Your task to perform on an android device: Open notification settings Image 0: 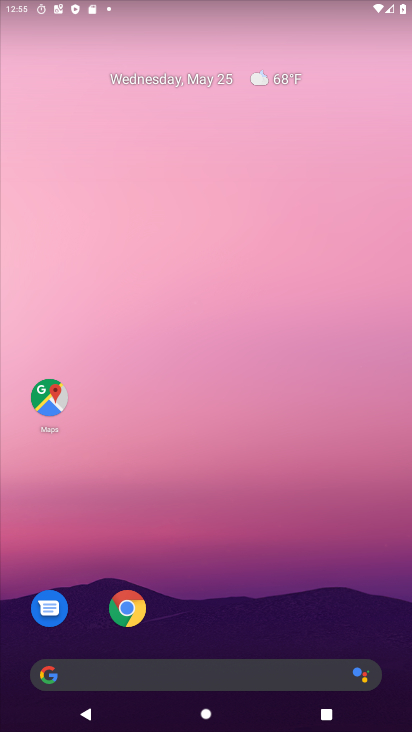
Step 0: click (393, 367)
Your task to perform on an android device: Open notification settings Image 1: 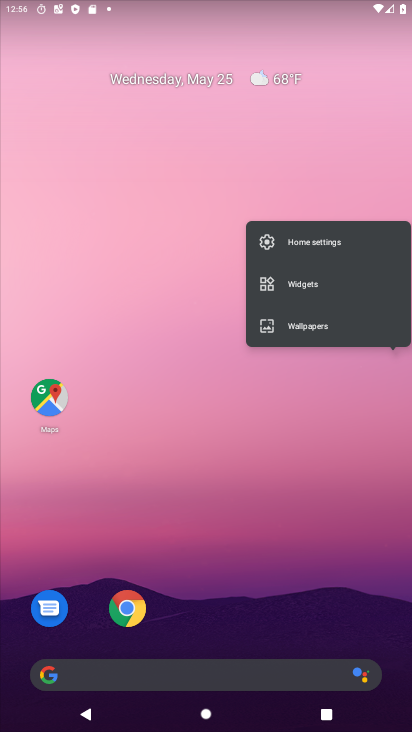
Step 1: drag from (308, 582) to (301, 13)
Your task to perform on an android device: Open notification settings Image 2: 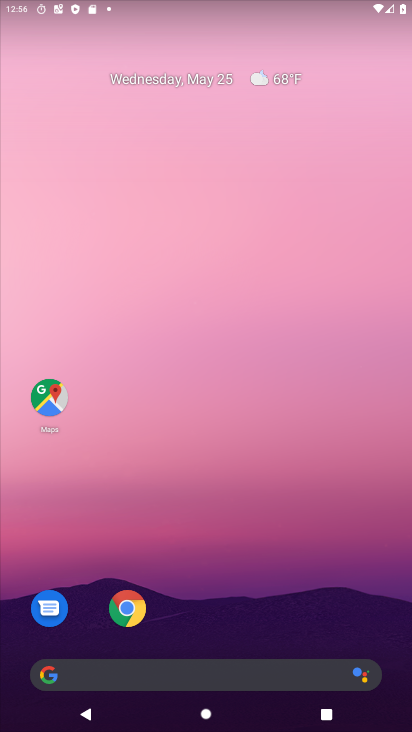
Step 2: drag from (271, 565) to (269, 65)
Your task to perform on an android device: Open notification settings Image 3: 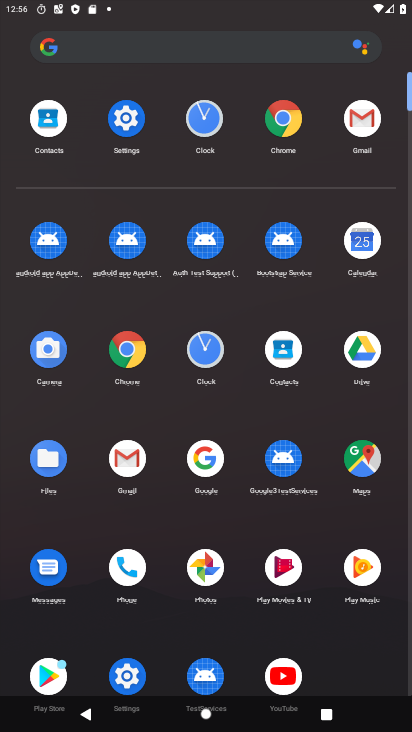
Step 3: drag from (143, 652) to (154, 311)
Your task to perform on an android device: Open notification settings Image 4: 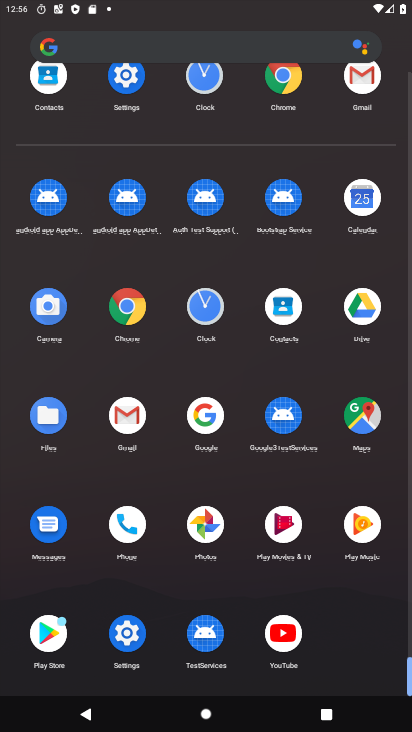
Step 4: click (134, 645)
Your task to perform on an android device: Open notification settings Image 5: 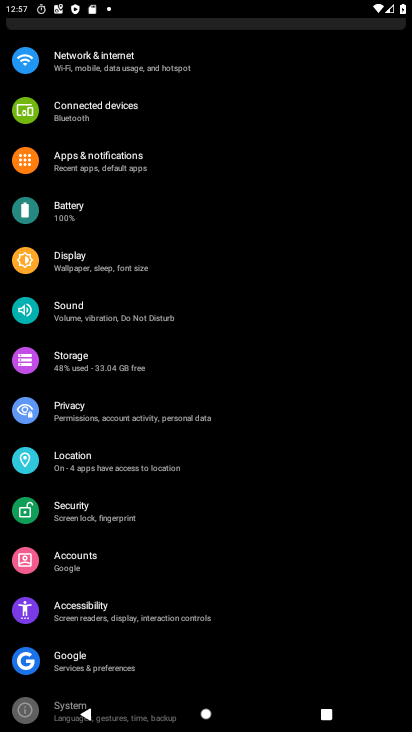
Step 5: click (171, 177)
Your task to perform on an android device: Open notification settings Image 6: 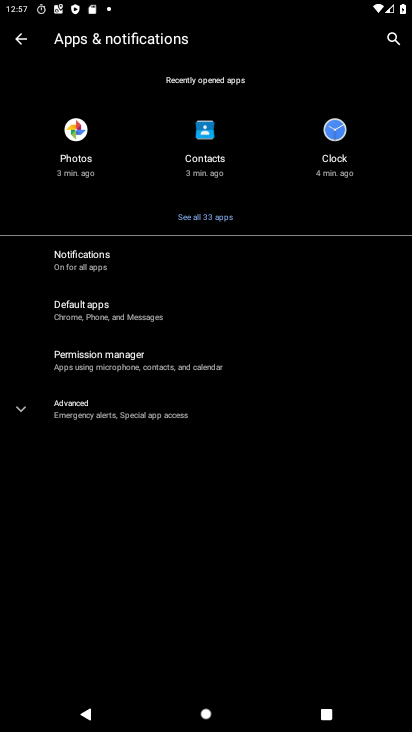
Step 6: click (130, 274)
Your task to perform on an android device: Open notification settings Image 7: 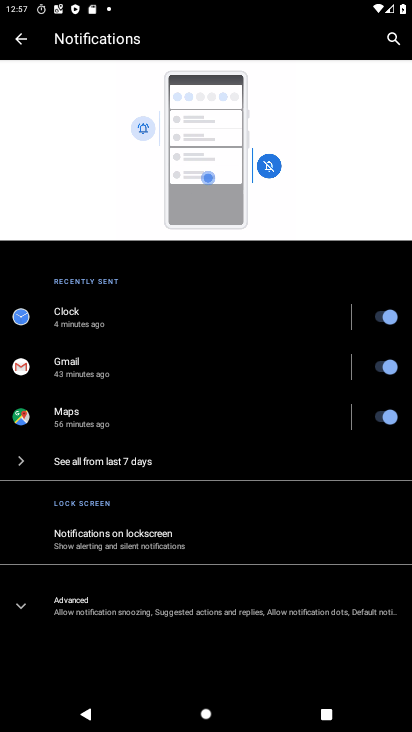
Step 7: task complete